Your task to perform on an android device: turn on bluetooth scan Image 0: 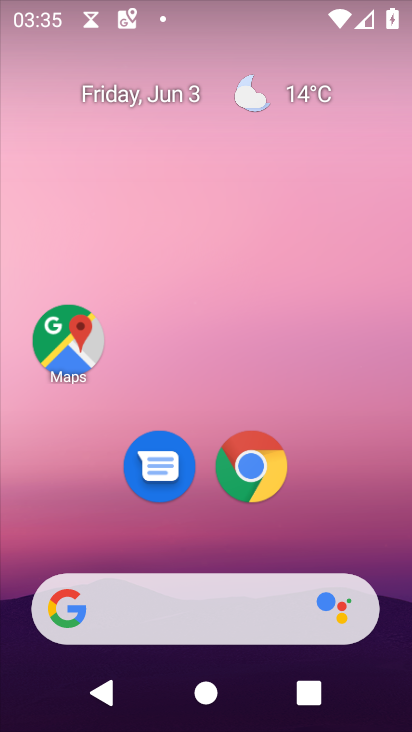
Step 0: drag from (192, 525) to (205, 87)
Your task to perform on an android device: turn on bluetooth scan Image 1: 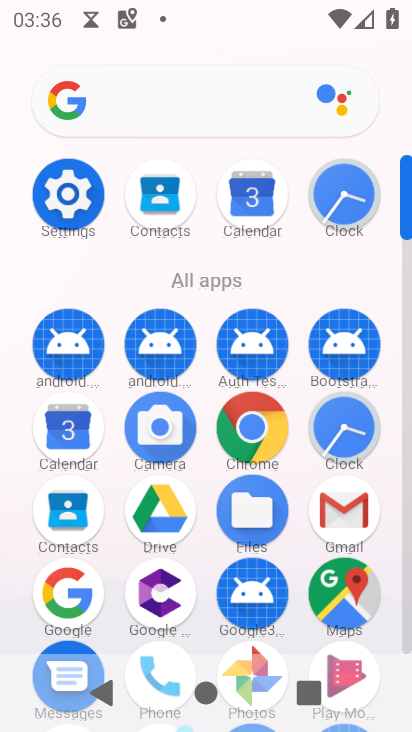
Step 1: click (68, 189)
Your task to perform on an android device: turn on bluetooth scan Image 2: 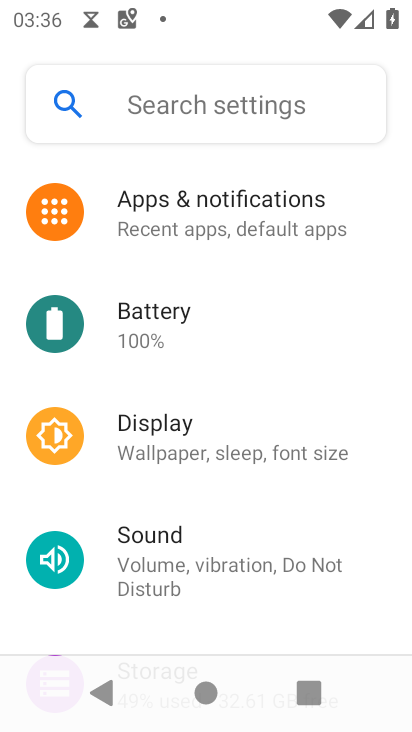
Step 2: drag from (222, 582) to (230, 77)
Your task to perform on an android device: turn on bluetooth scan Image 3: 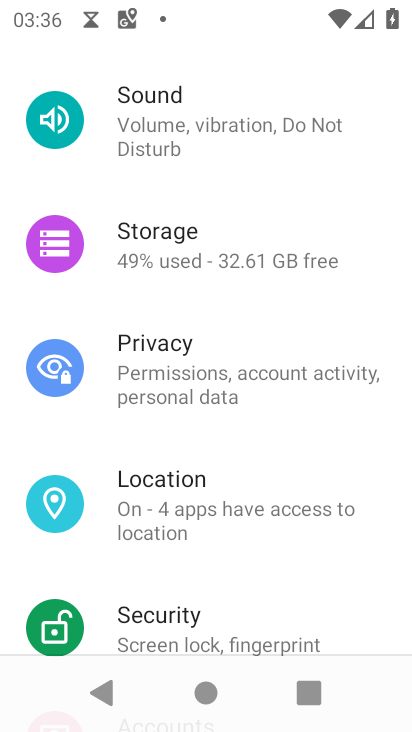
Step 3: click (223, 508)
Your task to perform on an android device: turn on bluetooth scan Image 4: 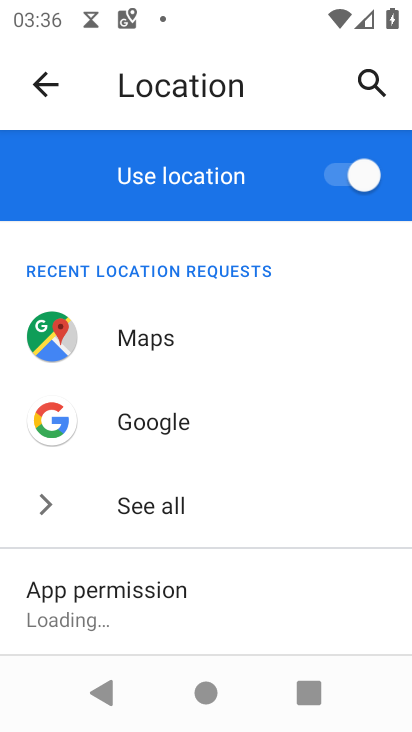
Step 4: drag from (198, 627) to (204, 190)
Your task to perform on an android device: turn on bluetooth scan Image 5: 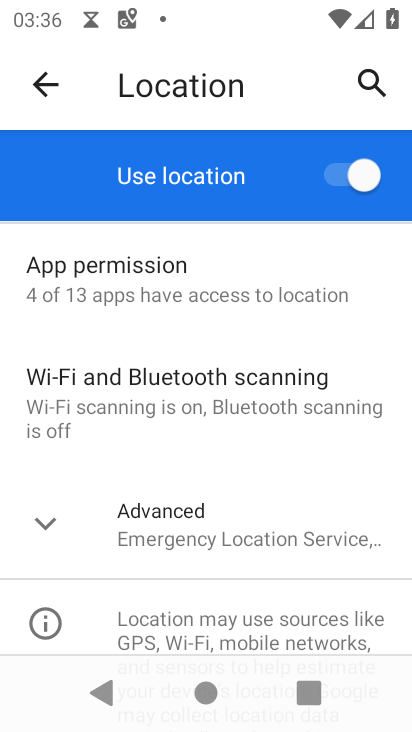
Step 5: click (271, 390)
Your task to perform on an android device: turn on bluetooth scan Image 6: 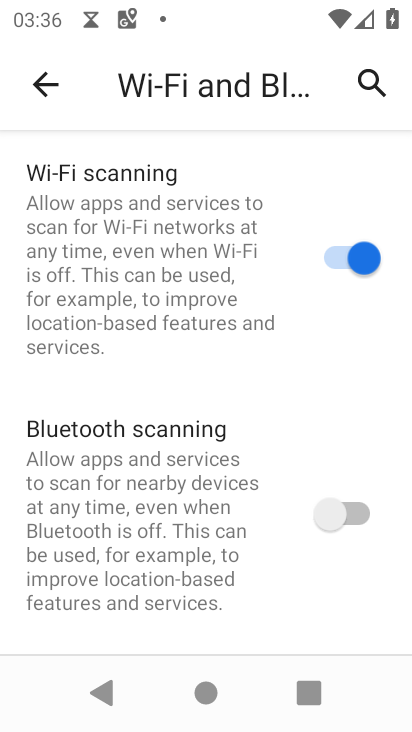
Step 6: click (349, 506)
Your task to perform on an android device: turn on bluetooth scan Image 7: 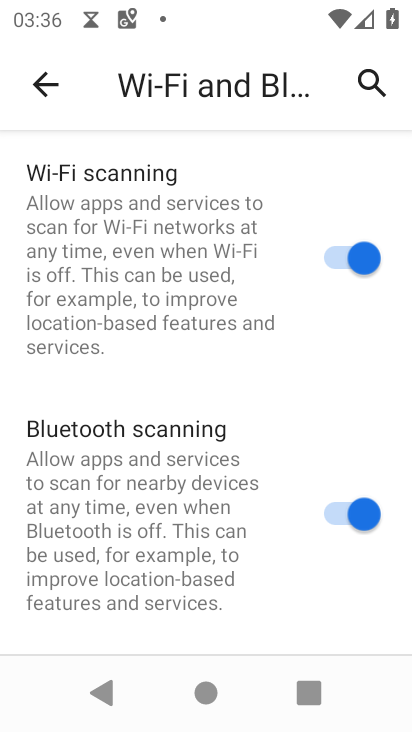
Step 7: task complete